Your task to perform on an android device: find snoozed emails in the gmail app Image 0: 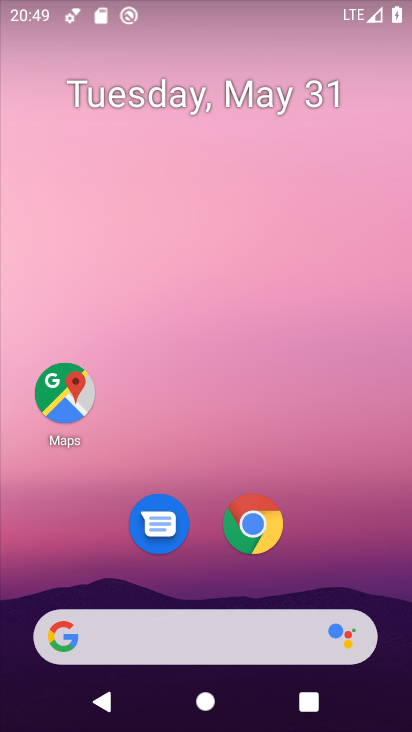
Step 0: drag from (306, 556) to (249, 33)
Your task to perform on an android device: find snoozed emails in the gmail app Image 1: 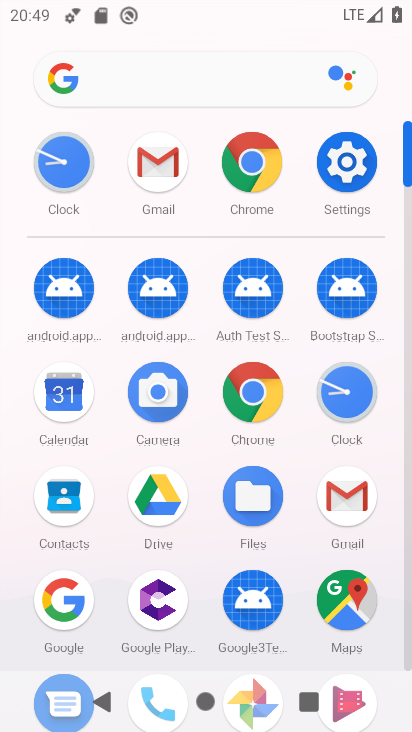
Step 1: click (168, 155)
Your task to perform on an android device: find snoozed emails in the gmail app Image 2: 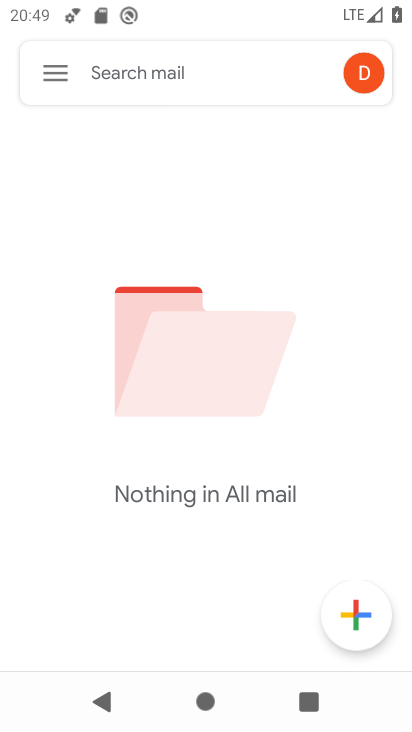
Step 2: click (51, 72)
Your task to perform on an android device: find snoozed emails in the gmail app Image 3: 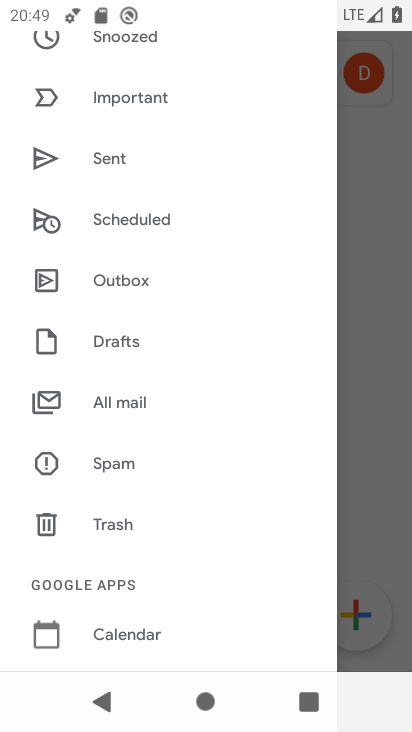
Step 3: drag from (155, 162) to (147, 528)
Your task to perform on an android device: find snoozed emails in the gmail app Image 4: 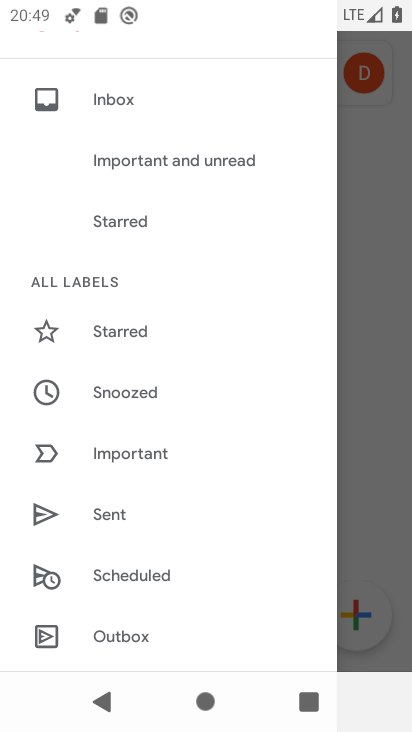
Step 4: click (155, 395)
Your task to perform on an android device: find snoozed emails in the gmail app Image 5: 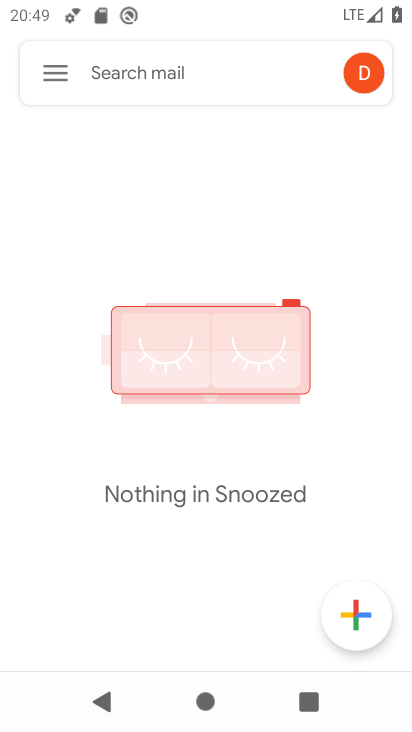
Step 5: task complete